Your task to perform on an android device: Open the stopwatch Image 0: 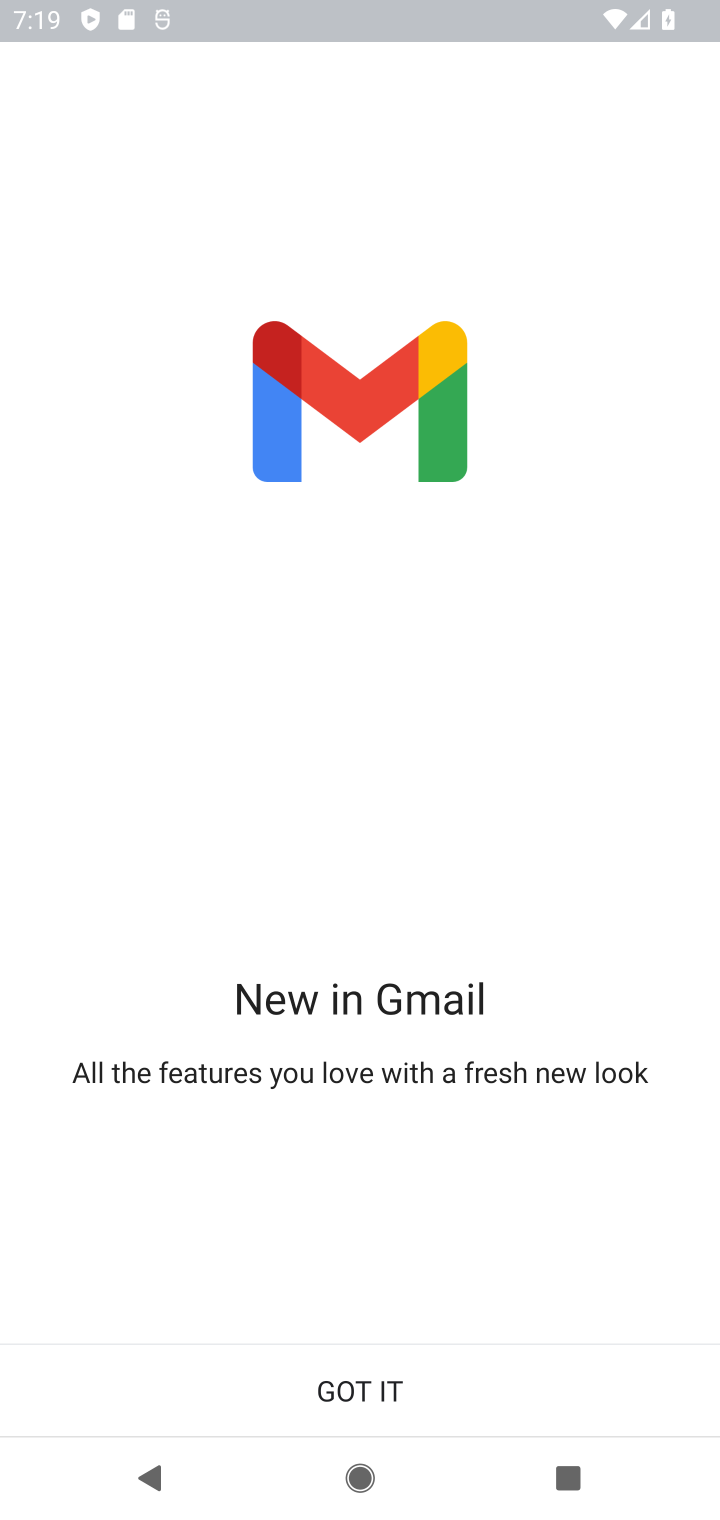
Step 0: press home button
Your task to perform on an android device: Open the stopwatch Image 1: 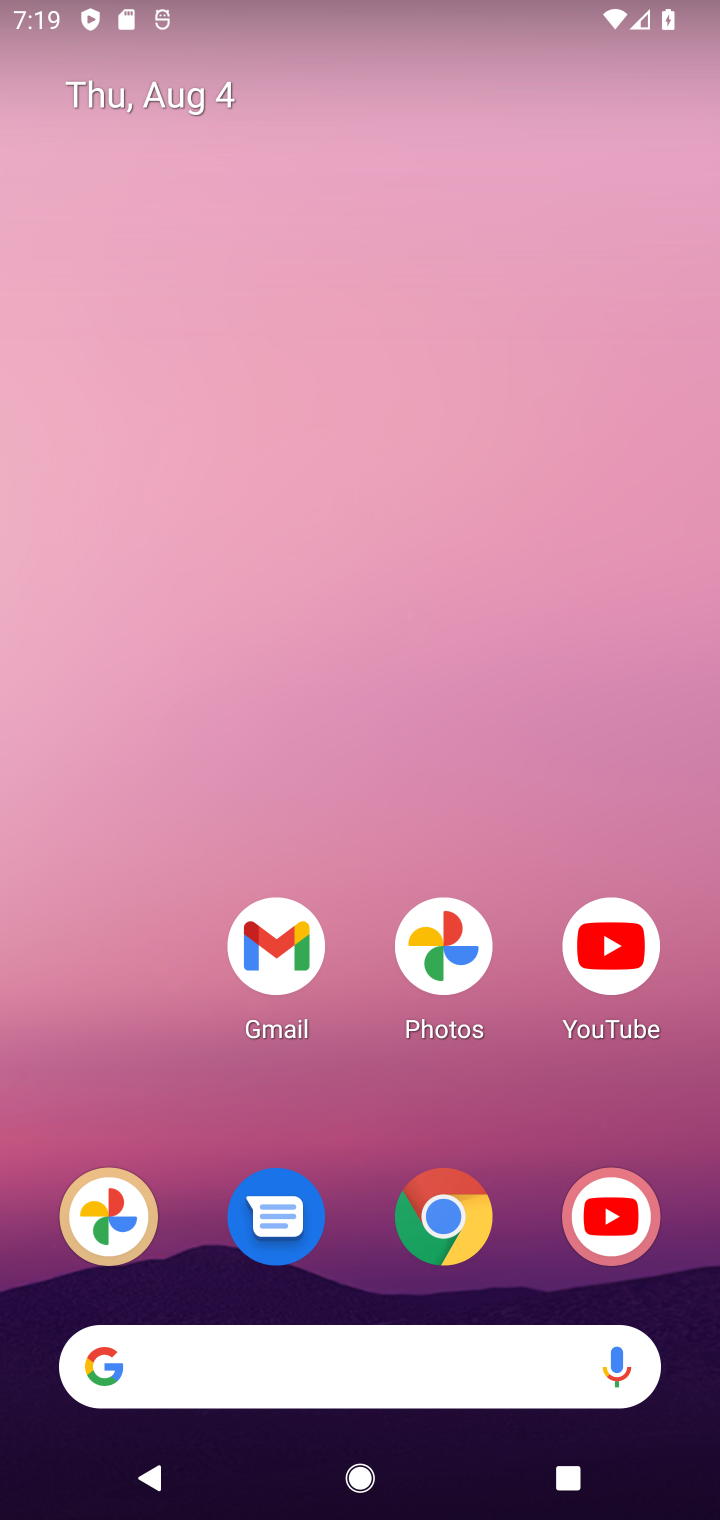
Step 1: drag from (336, 1098) to (277, 176)
Your task to perform on an android device: Open the stopwatch Image 2: 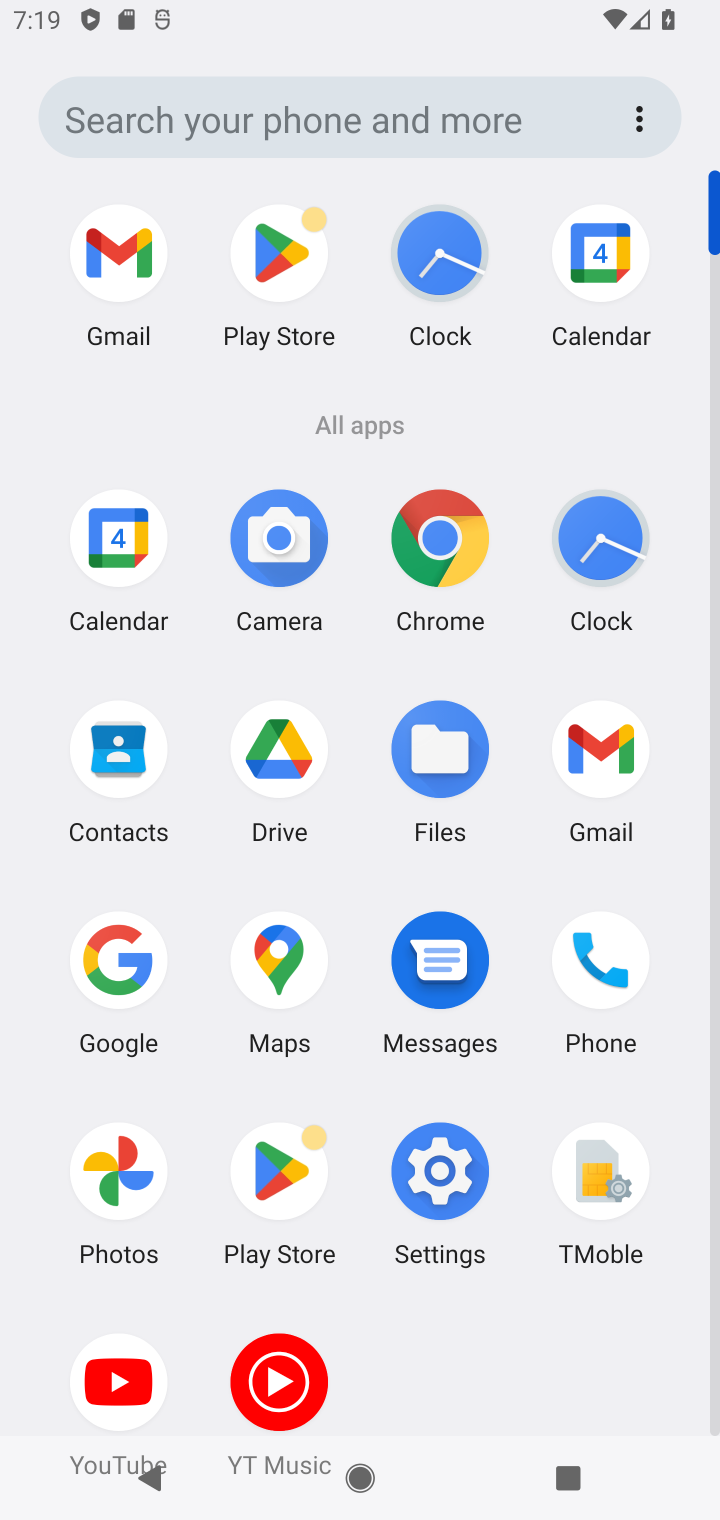
Step 2: click (602, 518)
Your task to perform on an android device: Open the stopwatch Image 3: 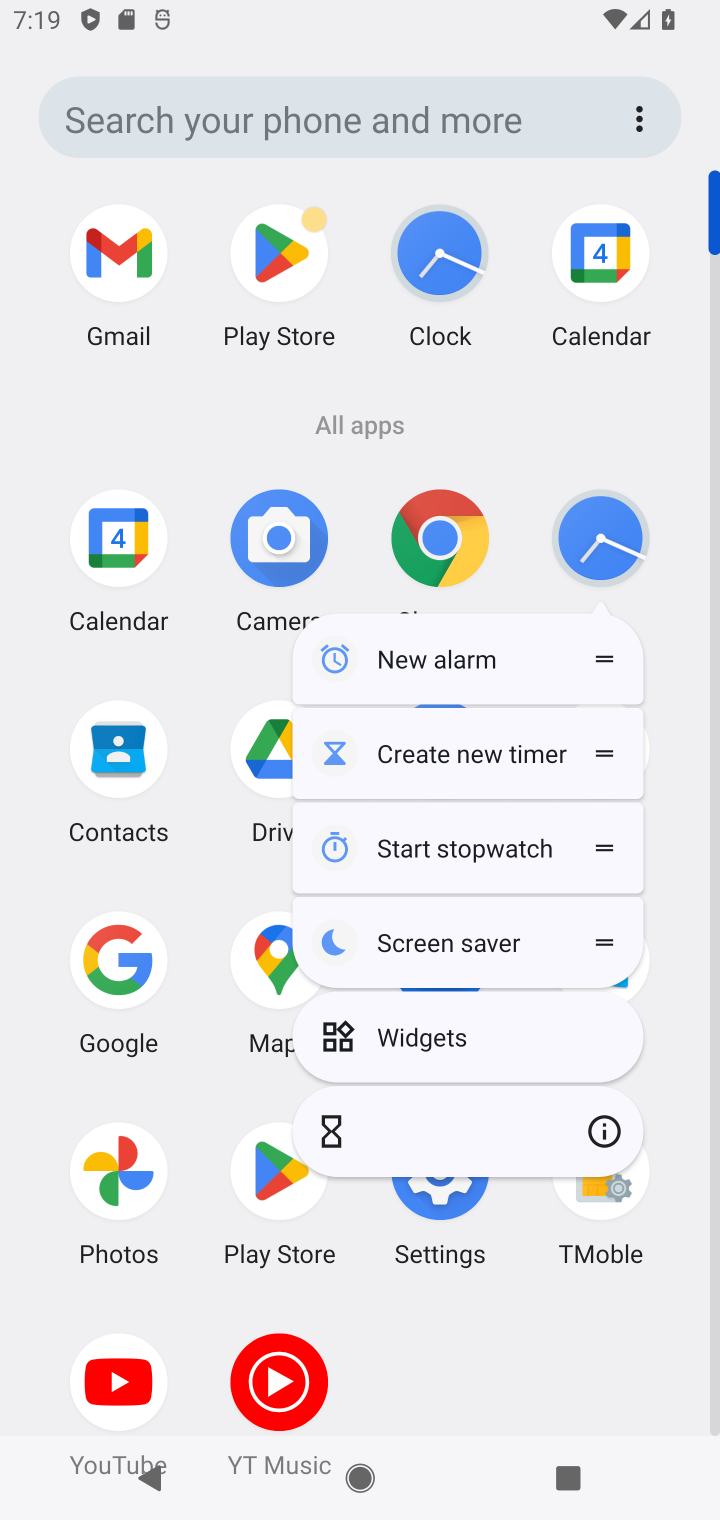
Step 3: click (606, 536)
Your task to perform on an android device: Open the stopwatch Image 4: 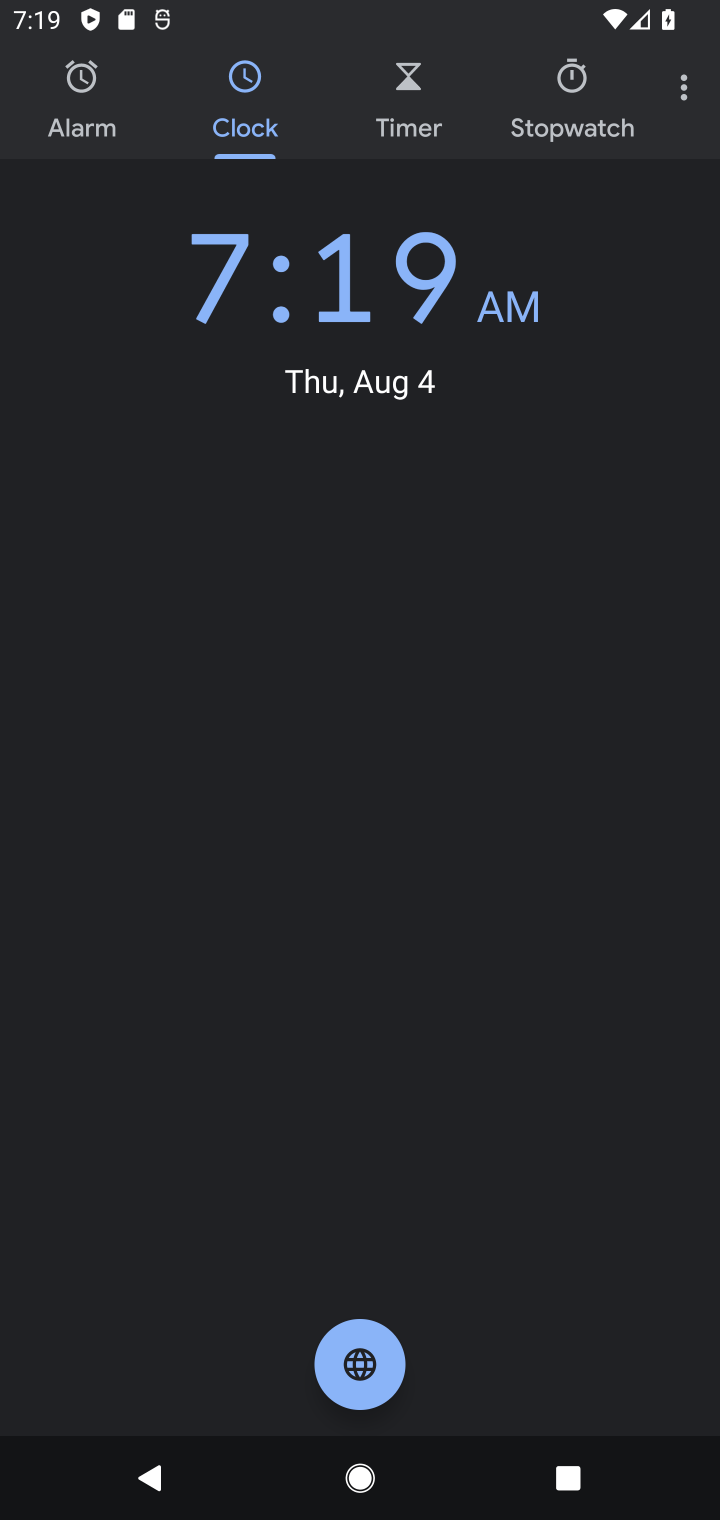
Step 4: click (591, 109)
Your task to perform on an android device: Open the stopwatch Image 5: 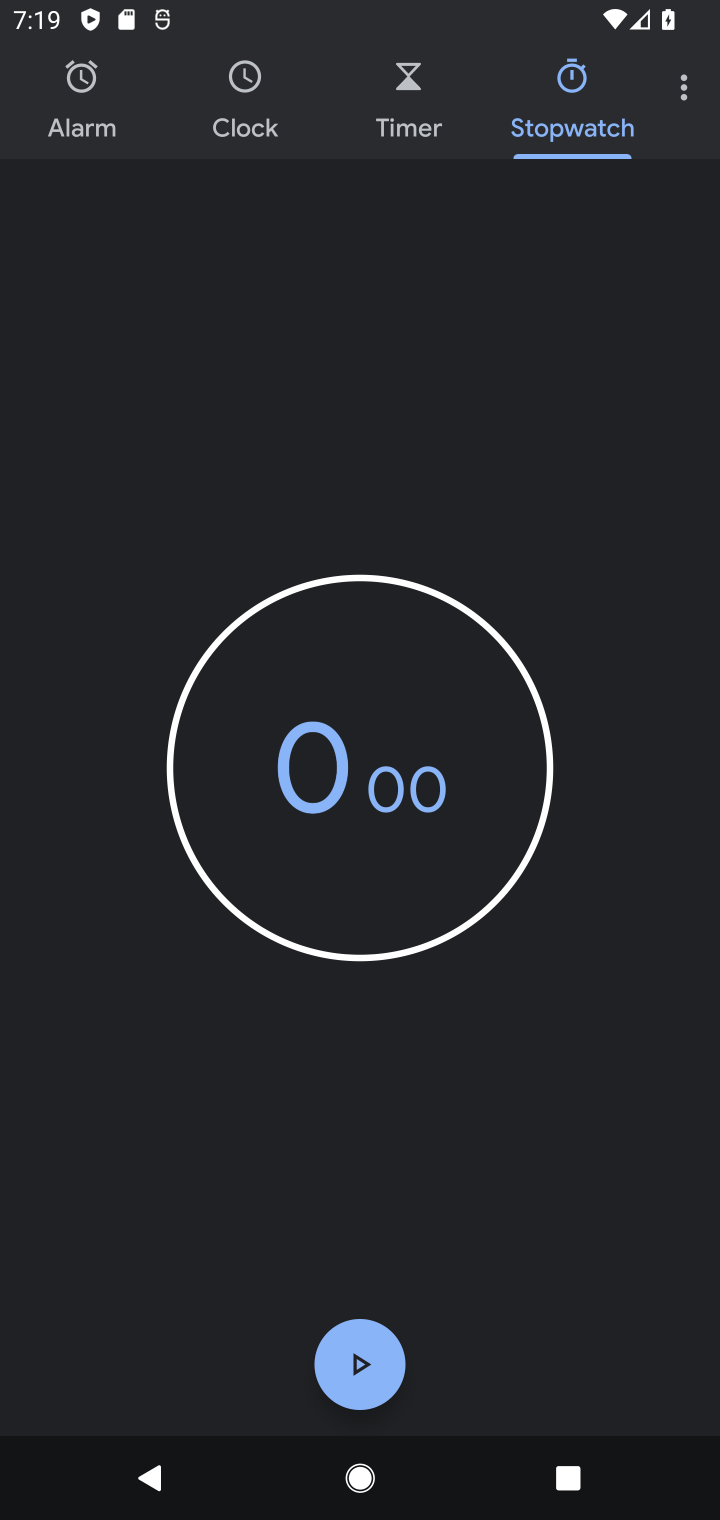
Step 5: task complete